Your task to perform on an android device: delete a single message in the gmail app Image 0: 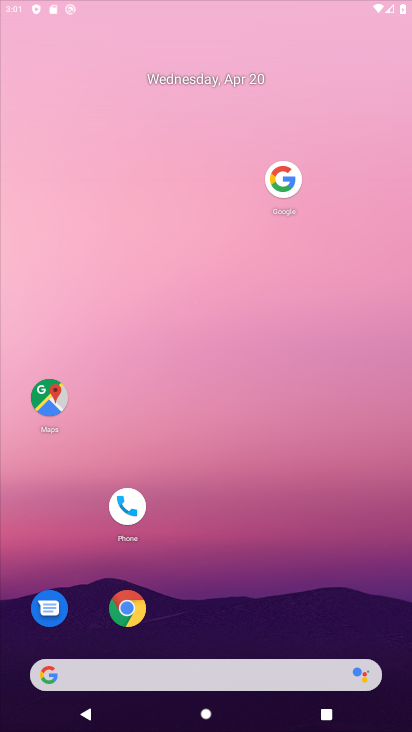
Step 0: click (44, 395)
Your task to perform on an android device: delete a single message in the gmail app Image 1: 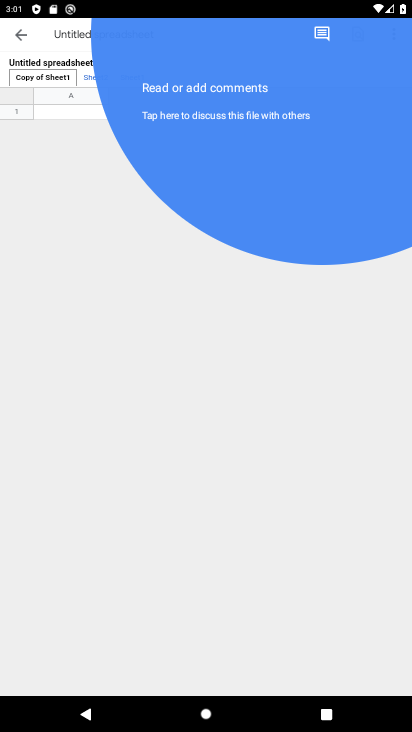
Step 1: press home button
Your task to perform on an android device: delete a single message in the gmail app Image 2: 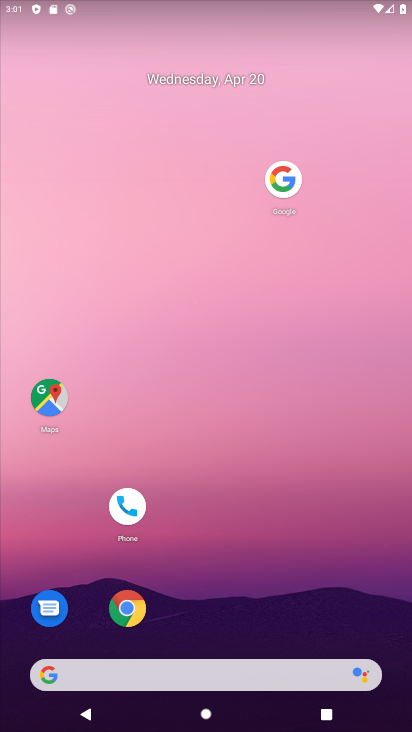
Step 2: drag from (302, 253) to (326, 50)
Your task to perform on an android device: delete a single message in the gmail app Image 3: 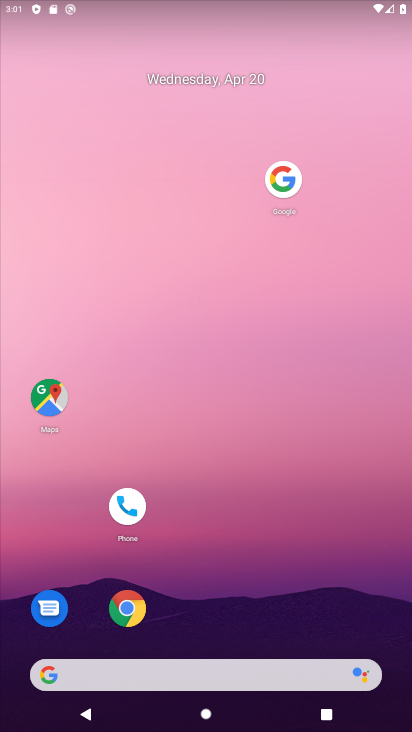
Step 3: drag from (264, 570) to (277, 135)
Your task to perform on an android device: delete a single message in the gmail app Image 4: 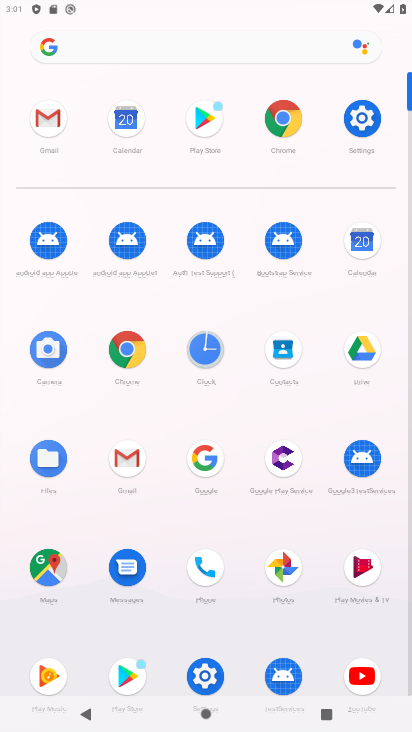
Step 4: click (126, 463)
Your task to perform on an android device: delete a single message in the gmail app Image 5: 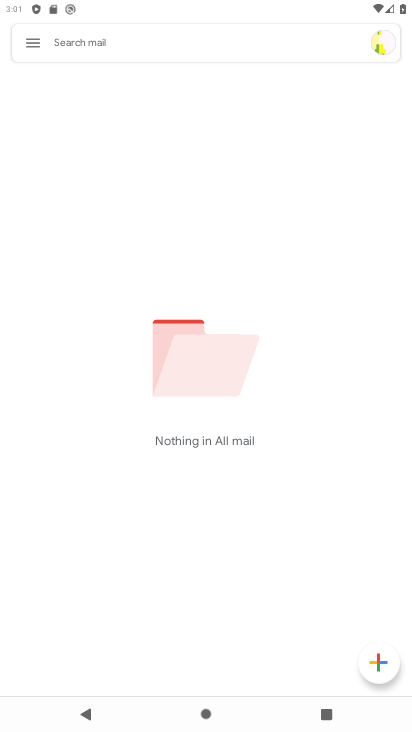
Step 5: task complete